Your task to perform on an android device: check battery use Image 0: 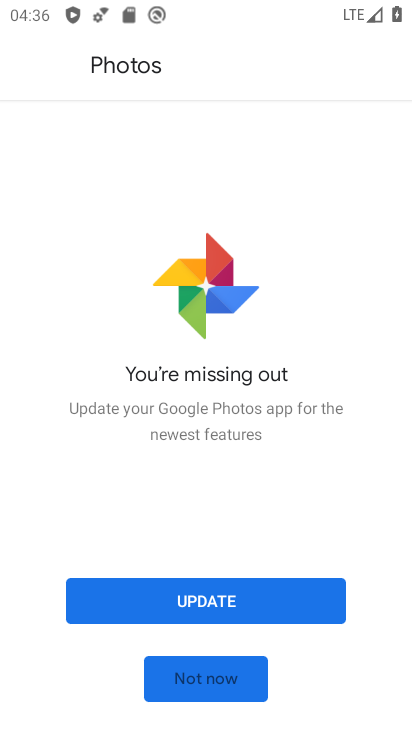
Step 0: press home button
Your task to perform on an android device: check battery use Image 1: 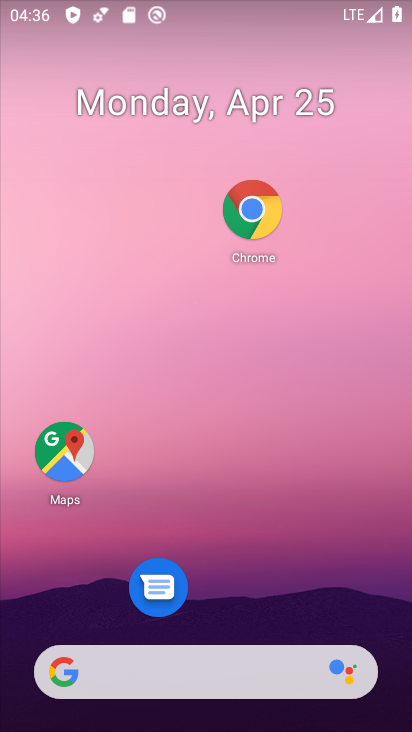
Step 1: drag from (371, 627) to (362, 62)
Your task to perform on an android device: check battery use Image 2: 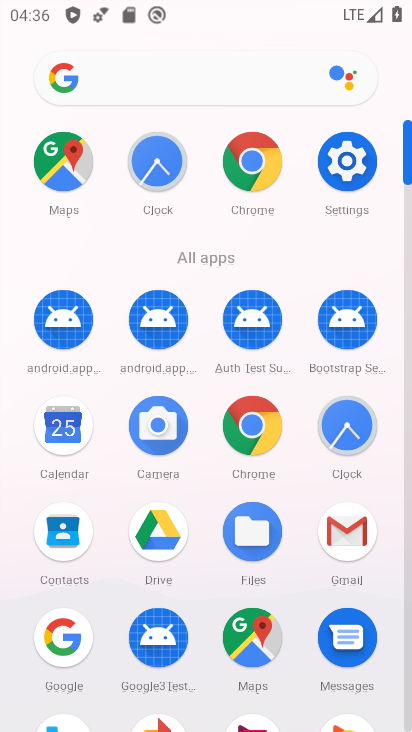
Step 2: click (353, 163)
Your task to perform on an android device: check battery use Image 3: 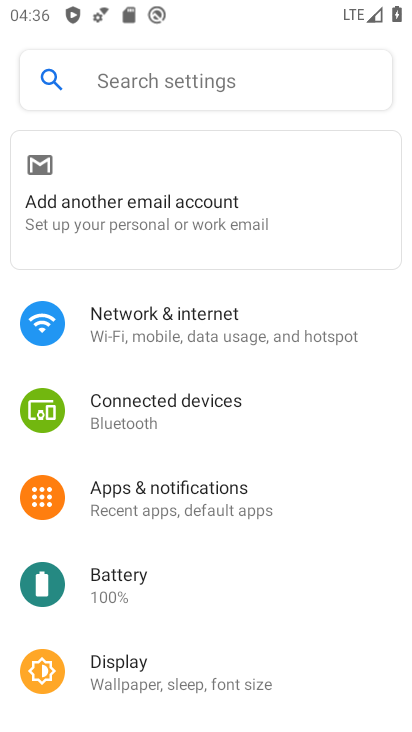
Step 3: click (259, 591)
Your task to perform on an android device: check battery use Image 4: 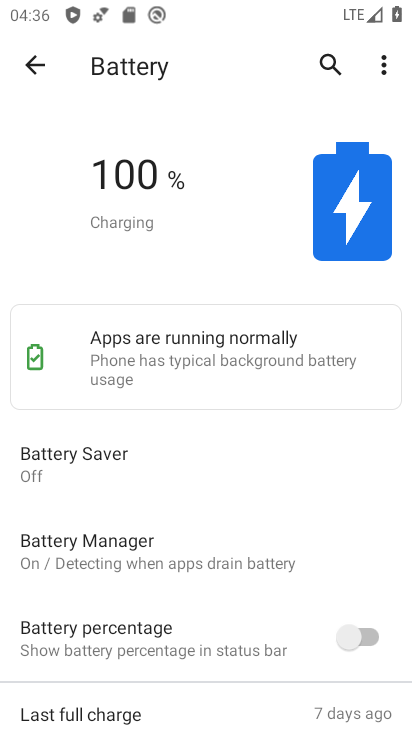
Step 4: click (380, 60)
Your task to perform on an android device: check battery use Image 5: 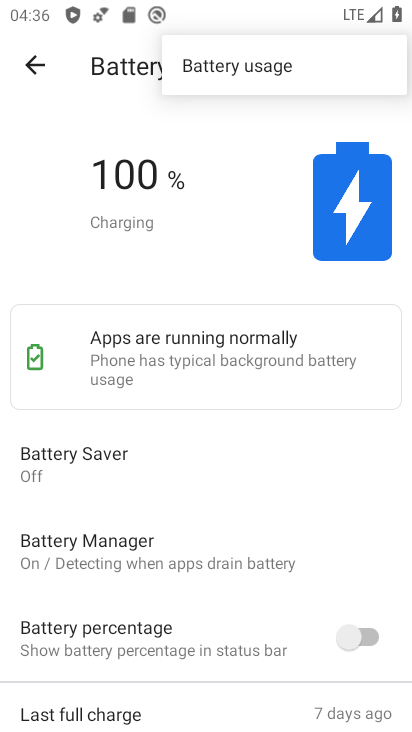
Step 5: click (299, 75)
Your task to perform on an android device: check battery use Image 6: 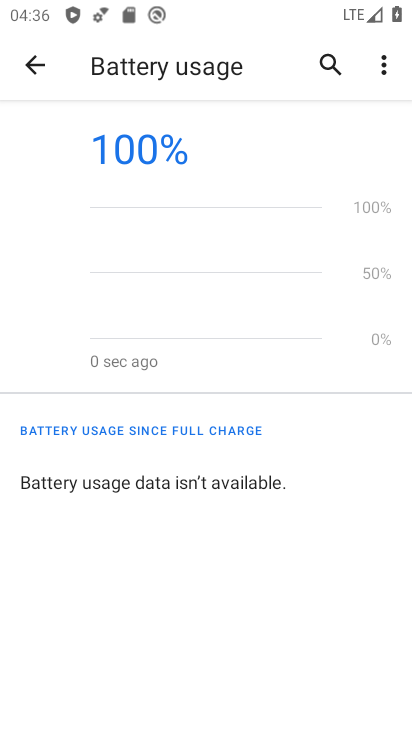
Step 6: task complete